Your task to perform on an android device: open device folders in google photos Image 0: 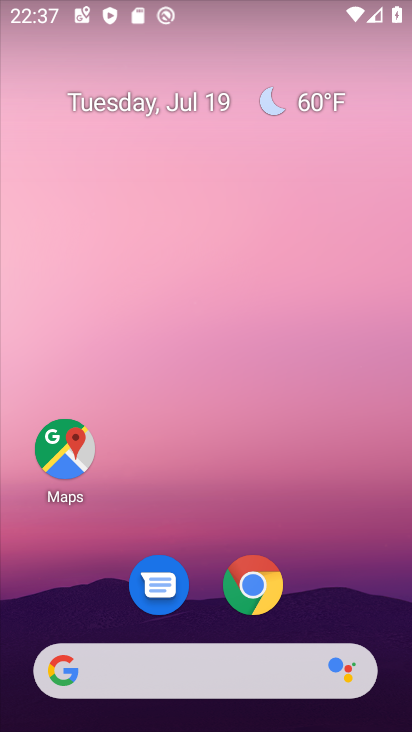
Step 0: drag from (338, 587) to (283, 34)
Your task to perform on an android device: open device folders in google photos Image 1: 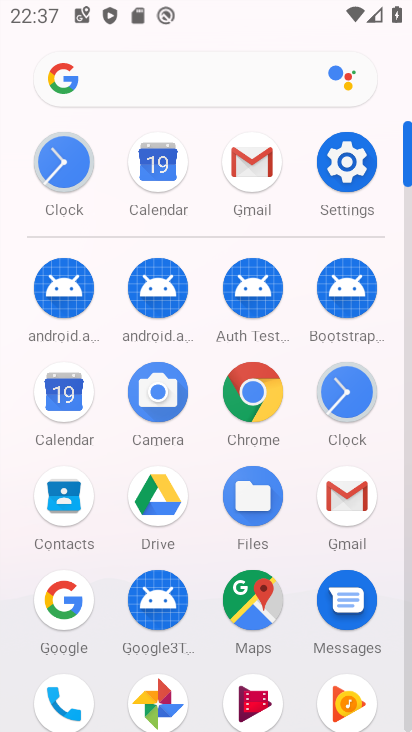
Step 1: click (169, 690)
Your task to perform on an android device: open device folders in google photos Image 2: 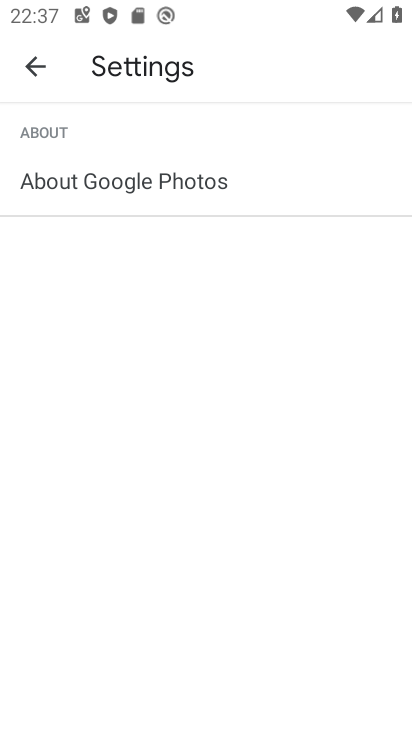
Step 2: click (43, 71)
Your task to perform on an android device: open device folders in google photos Image 3: 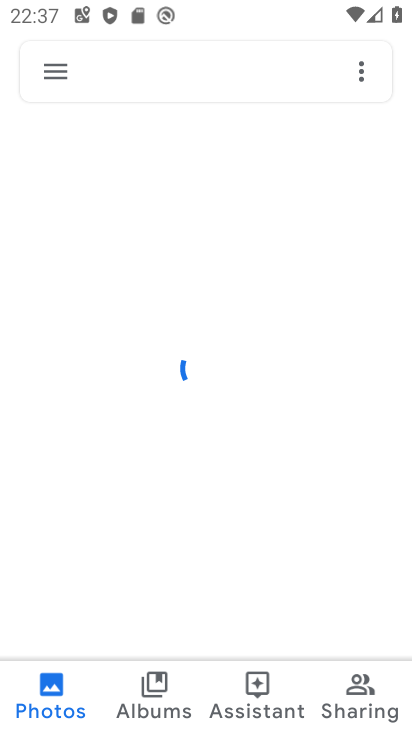
Step 3: click (43, 71)
Your task to perform on an android device: open device folders in google photos Image 4: 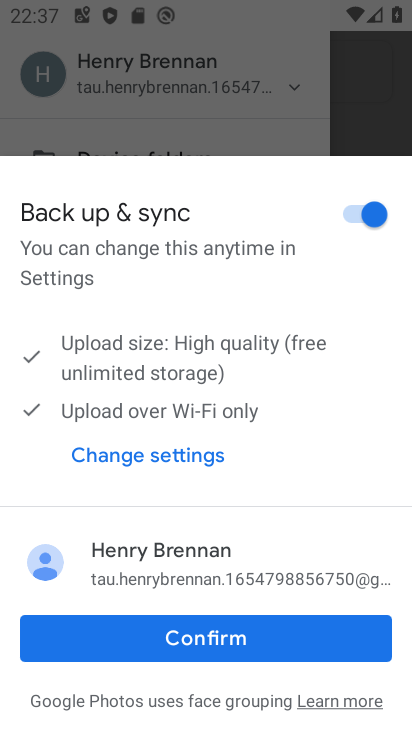
Step 4: click (198, 638)
Your task to perform on an android device: open device folders in google photos Image 5: 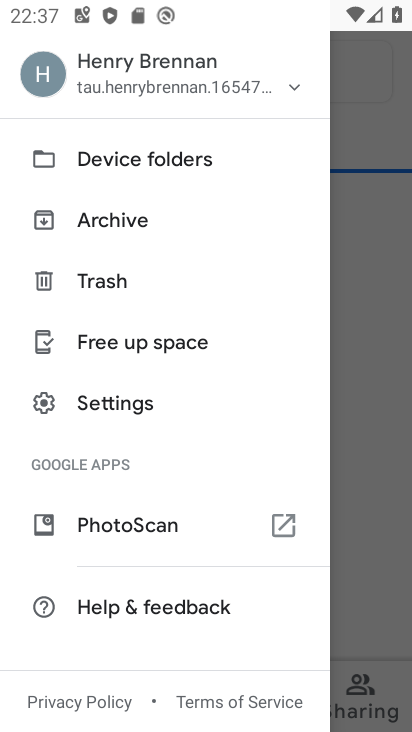
Step 5: click (159, 158)
Your task to perform on an android device: open device folders in google photos Image 6: 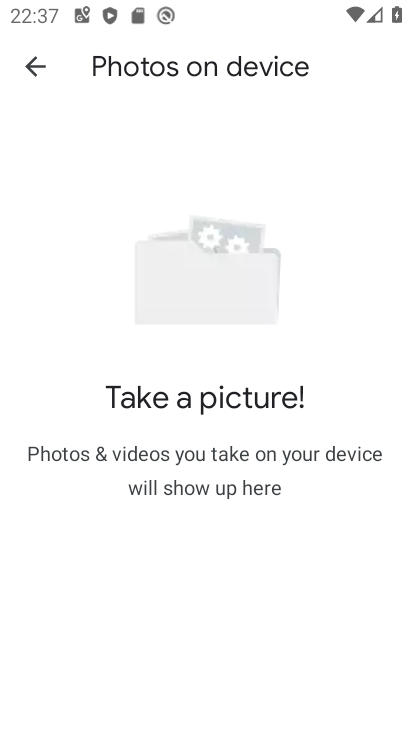
Step 6: task complete